Your task to perform on an android device: Turn on the flashlight Image 0: 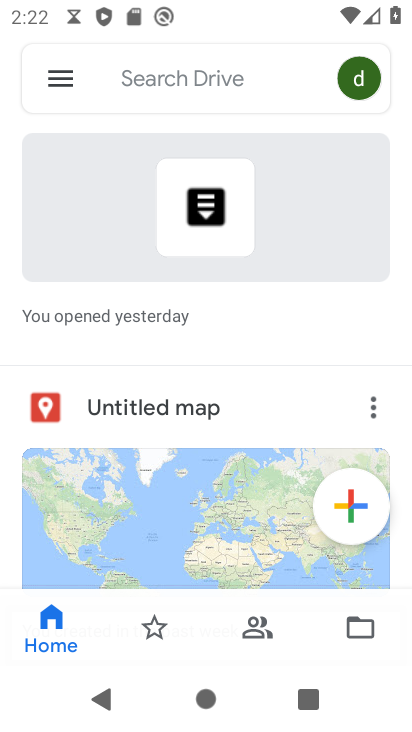
Step 0: press home button
Your task to perform on an android device: Turn on the flashlight Image 1: 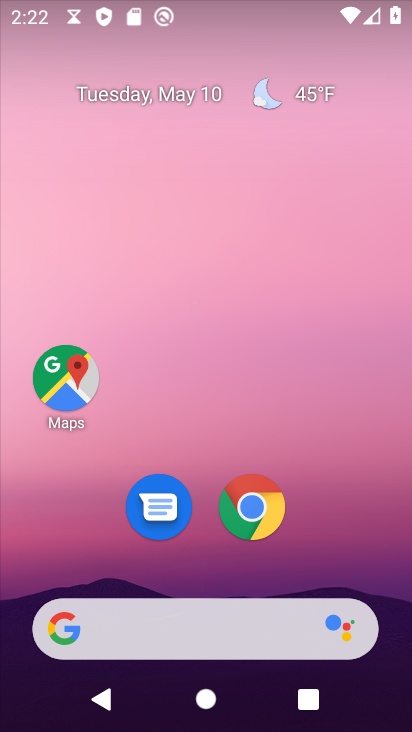
Step 1: drag from (329, 451) to (88, 129)
Your task to perform on an android device: Turn on the flashlight Image 2: 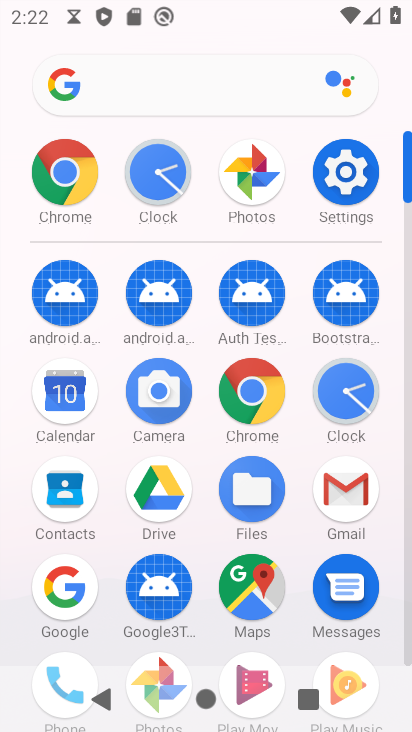
Step 2: click (331, 180)
Your task to perform on an android device: Turn on the flashlight Image 3: 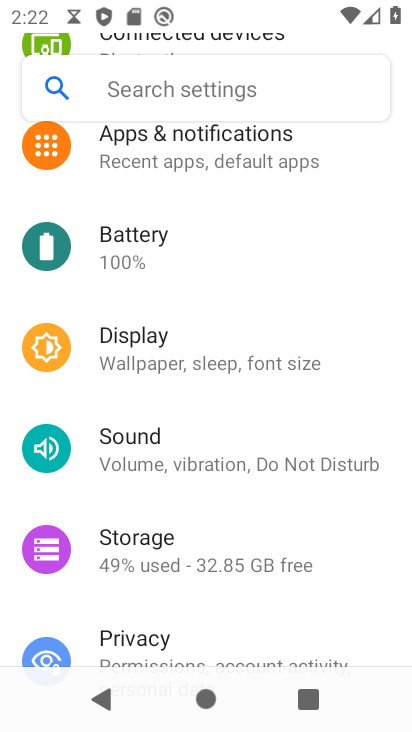
Step 3: click (181, 91)
Your task to perform on an android device: Turn on the flashlight Image 4: 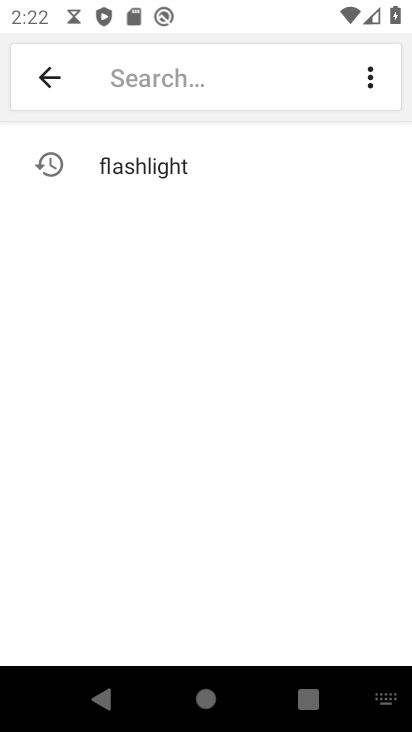
Step 4: click (164, 173)
Your task to perform on an android device: Turn on the flashlight Image 5: 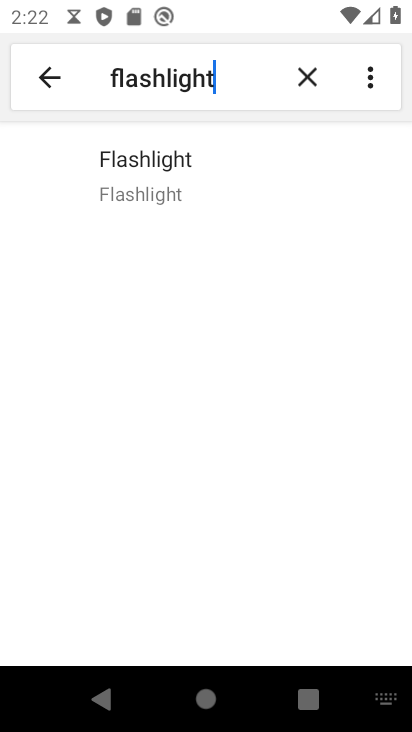
Step 5: click (164, 172)
Your task to perform on an android device: Turn on the flashlight Image 6: 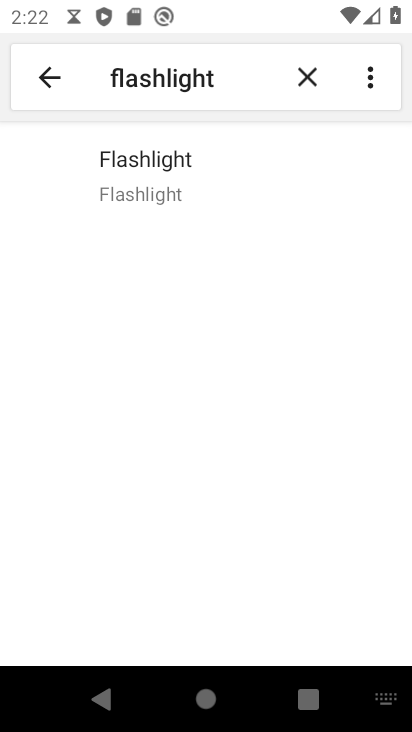
Step 6: click (164, 172)
Your task to perform on an android device: Turn on the flashlight Image 7: 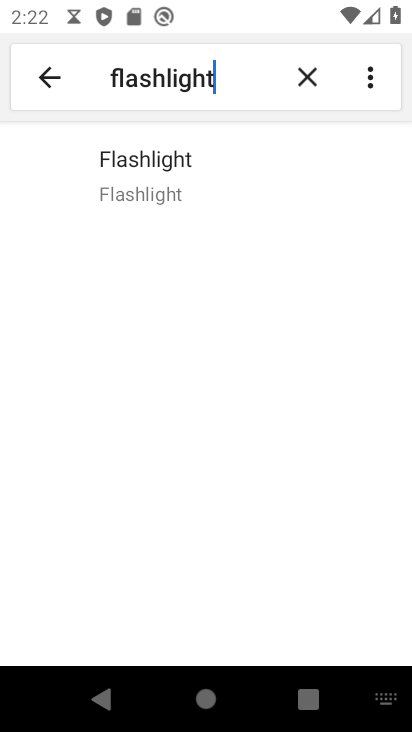
Step 7: click (164, 172)
Your task to perform on an android device: Turn on the flashlight Image 8: 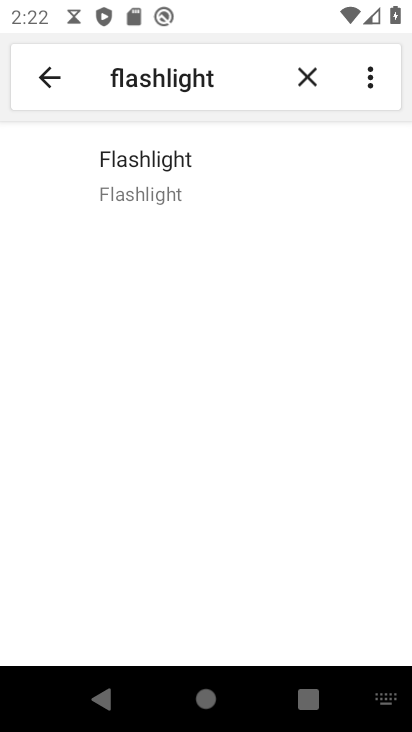
Step 8: task complete